Your task to perform on an android device: turn on location history Image 0: 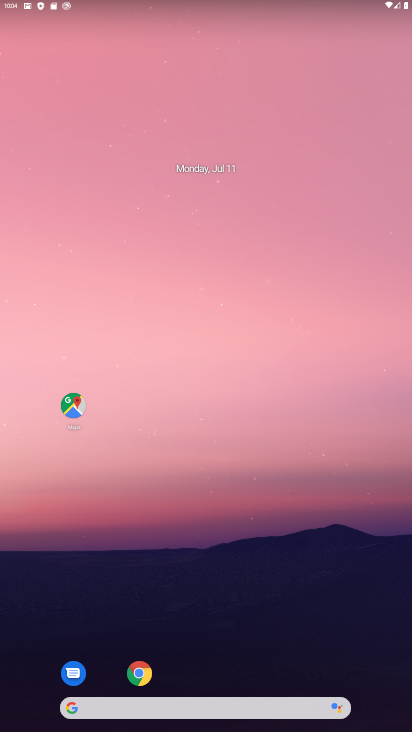
Step 0: drag from (153, 662) to (206, 438)
Your task to perform on an android device: turn on location history Image 1: 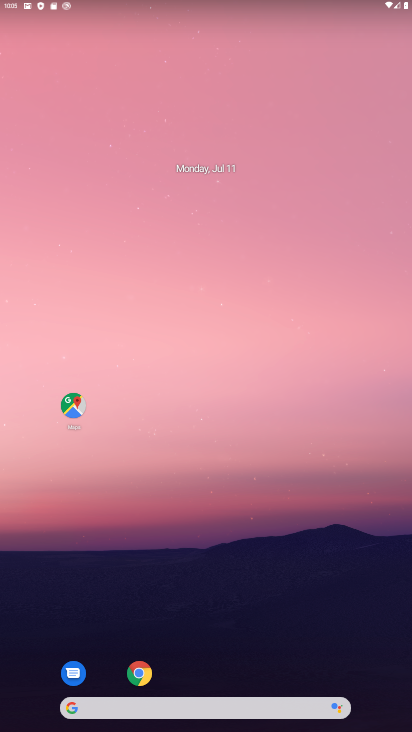
Step 1: drag from (281, 655) to (401, 257)
Your task to perform on an android device: turn on location history Image 2: 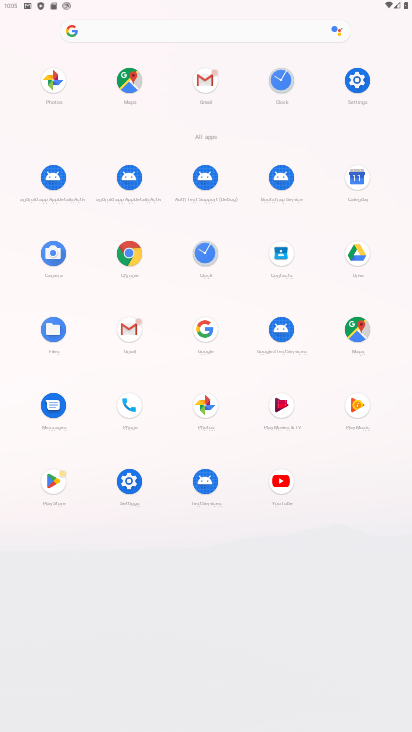
Step 2: click (346, 87)
Your task to perform on an android device: turn on location history Image 3: 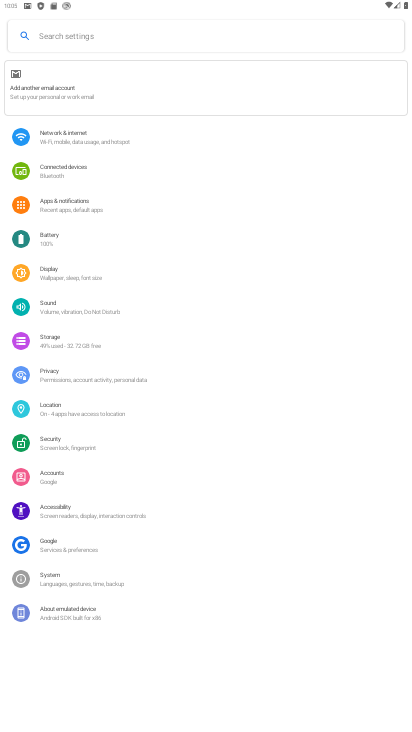
Step 3: click (48, 413)
Your task to perform on an android device: turn on location history Image 4: 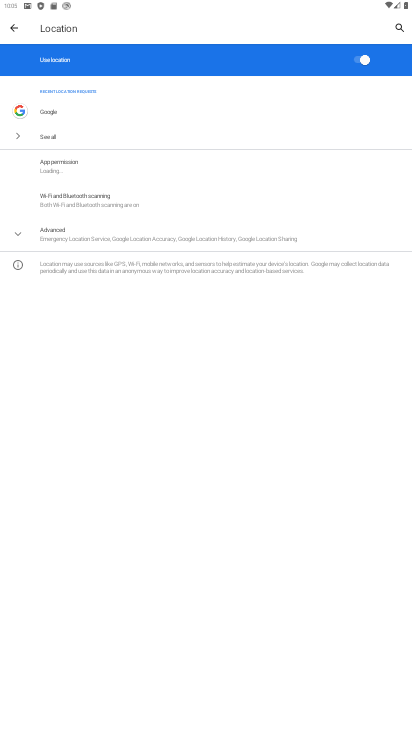
Step 4: click (68, 233)
Your task to perform on an android device: turn on location history Image 5: 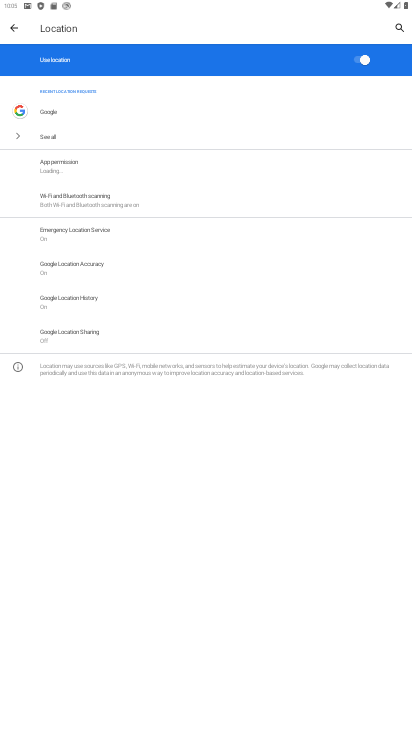
Step 5: click (84, 300)
Your task to perform on an android device: turn on location history Image 6: 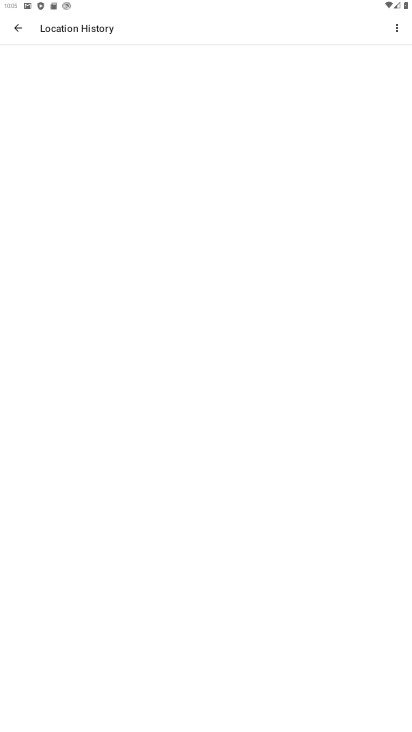
Step 6: task complete